Your task to perform on an android device: What's the weather today? Image 0: 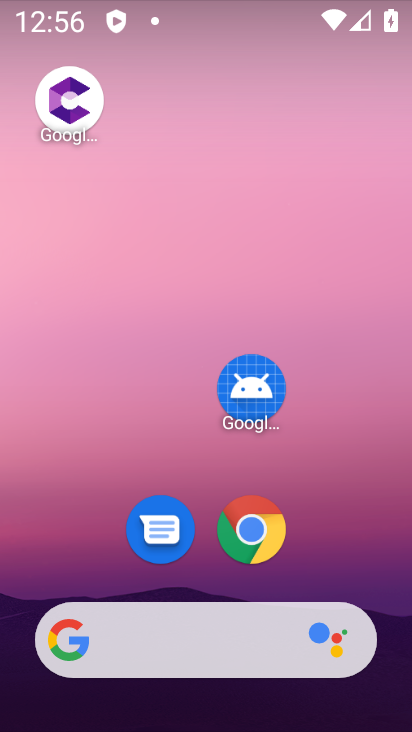
Step 0: drag from (248, 637) to (228, 59)
Your task to perform on an android device: What's the weather today? Image 1: 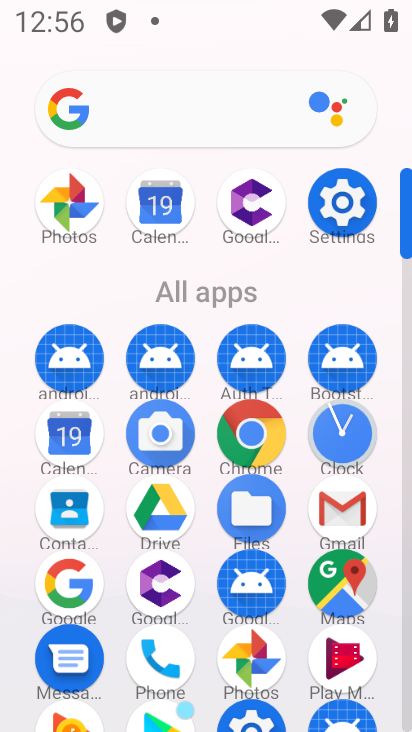
Step 1: click (85, 595)
Your task to perform on an android device: What's the weather today? Image 2: 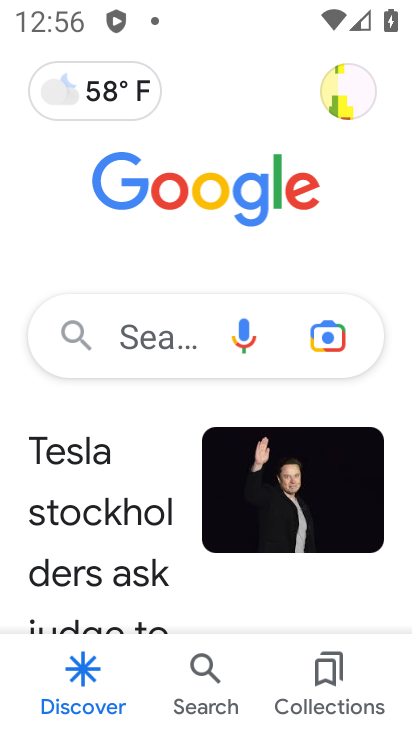
Step 2: drag from (141, 324) to (117, 576)
Your task to perform on an android device: What's the weather today? Image 3: 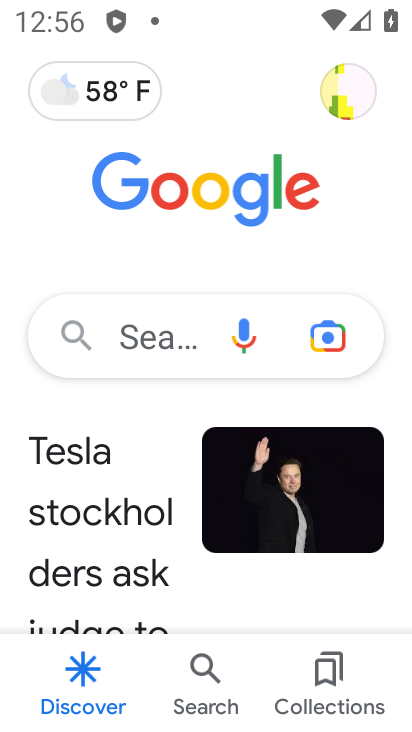
Step 3: click (88, 109)
Your task to perform on an android device: What's the weather today? Image 4: 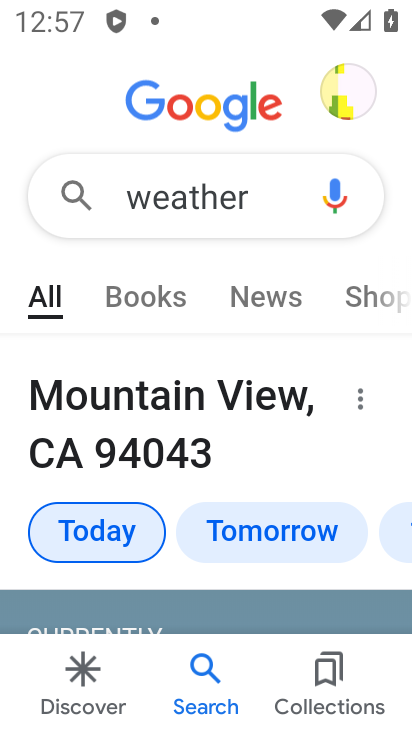
Step 4: task complete